Your task to perform on an android device: Go to calendar. Show me events next week Image 0: 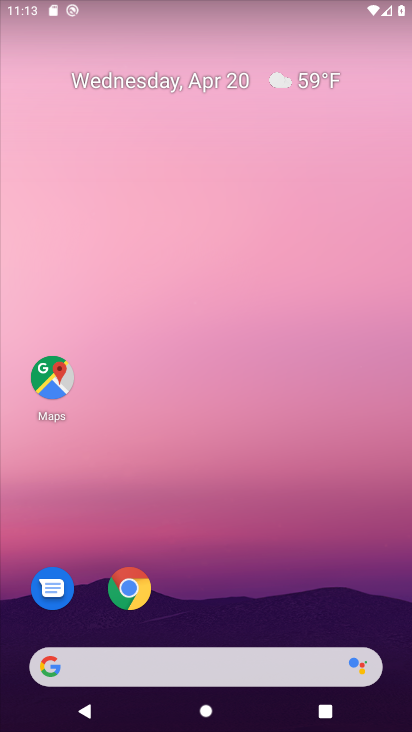
Step 0: drag from (217, 592) to (205, 11)
Your task to perform on an android device: Go to calendar. Show me events next week Image 1: 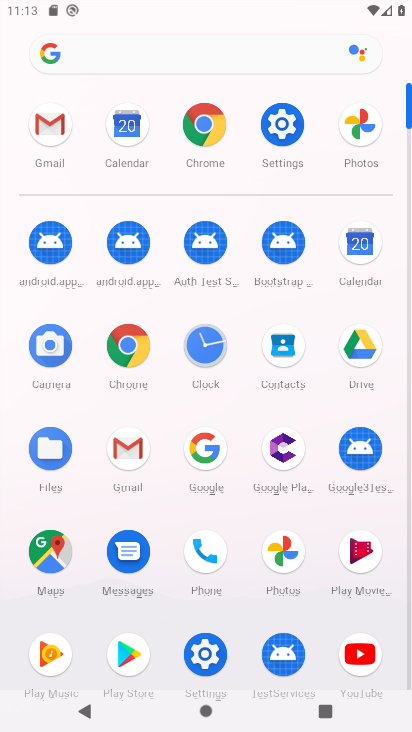
Step 1: click (364, 244)
Your task to perform on an android device: Go to calendar. Show me events next week Image 2: 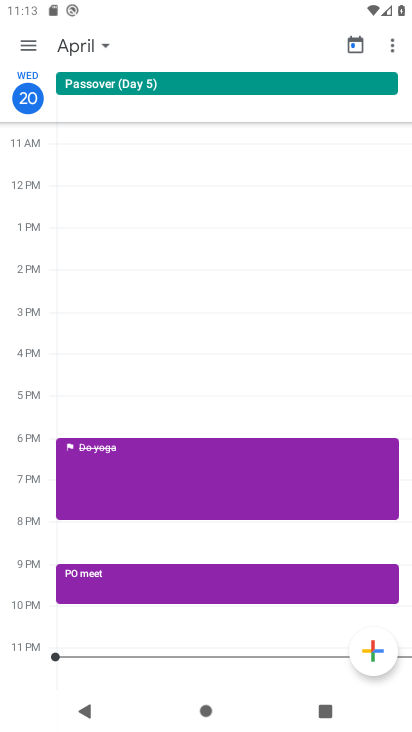
Step 2: click (23, 44)
Your task to perform on an android device: Go to calendar. Show me events next week Image 3: 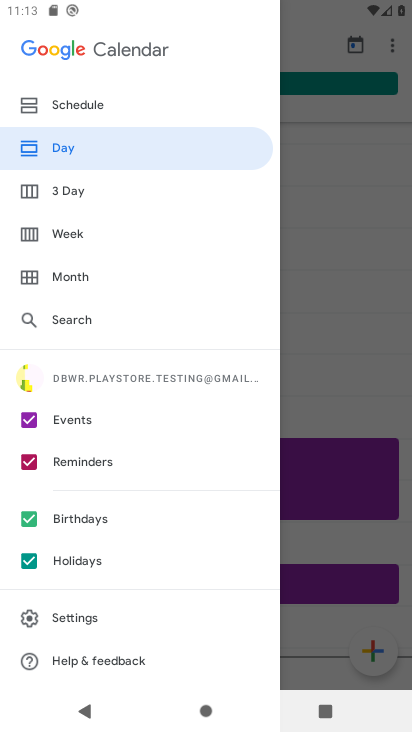
Step 3: click (64, 239)
Your task to perform on an android device: Go to calendar. Show me events next week Image 4: 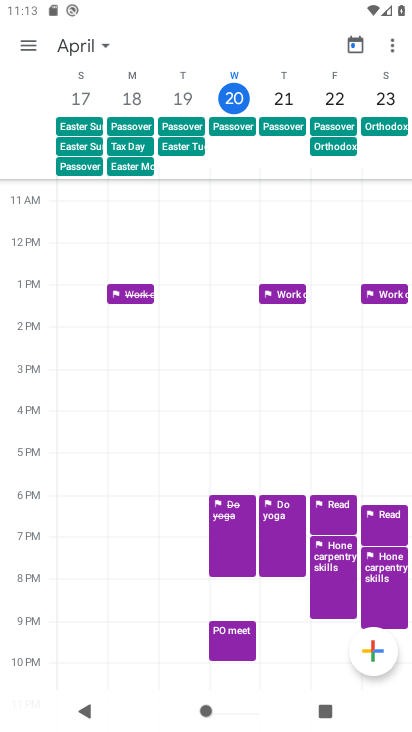
Step 4: click (109, 44)
Your task to perform on an android device: Go to calendar. Show me events next week Image 5: 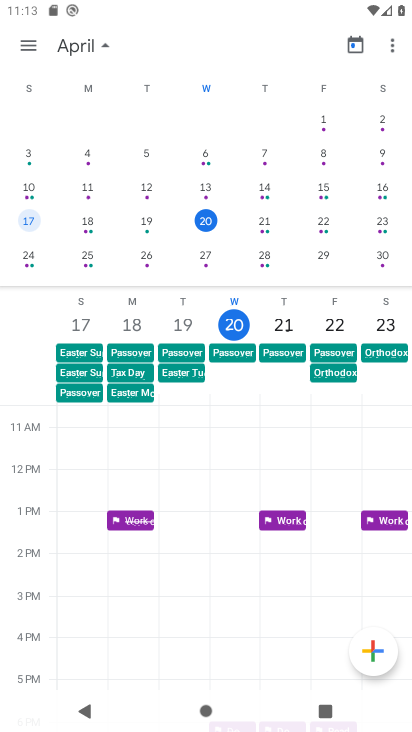
Step 5: click (209, 255)
Your task to perform on an android device: Go to calendar. Show me events next week Image 6: 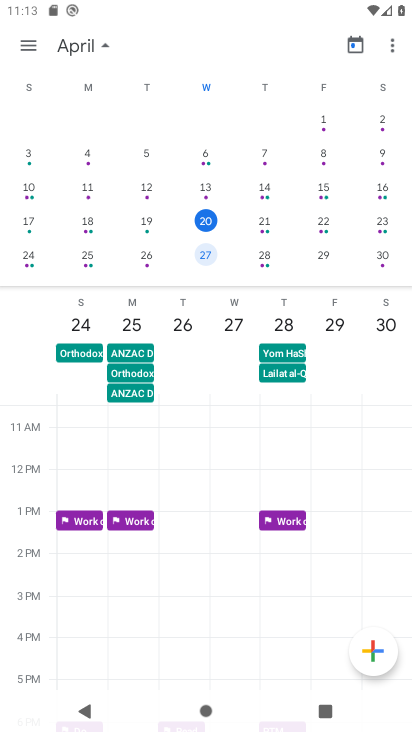
Step 6: task complete